Your task to perform on an android device: Open the calendar and show me this week's events? Image 0: 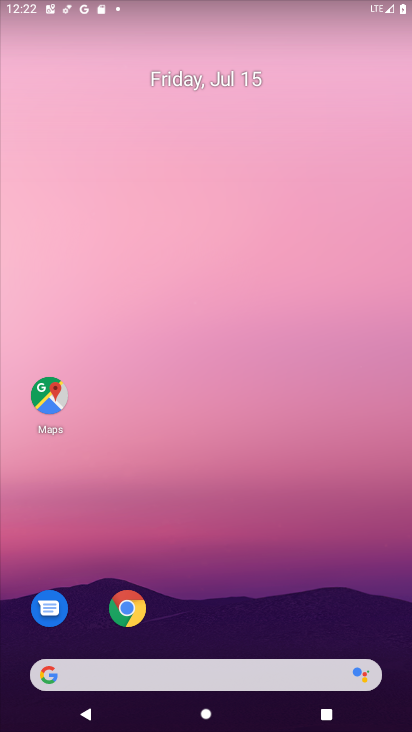
Step 0: drag from (200, 567) to (113, 137)
Your task to perform on an android device: Open the calendar and show me this week's events? Image 1: 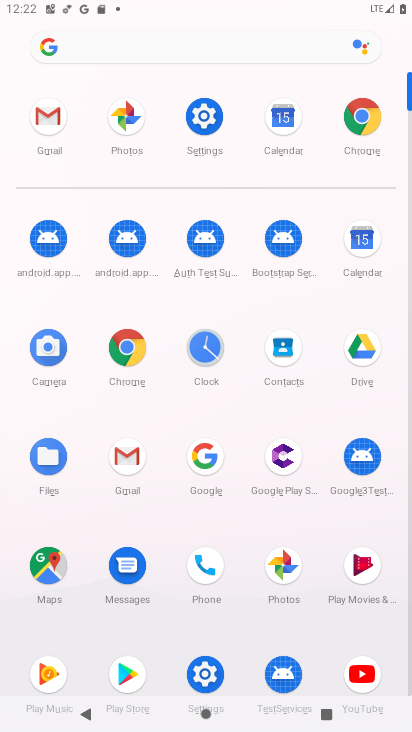
Step 1: click (274, 128)
Your task to perform on an android device: Open the calendar and show me this week's events? Image 2: 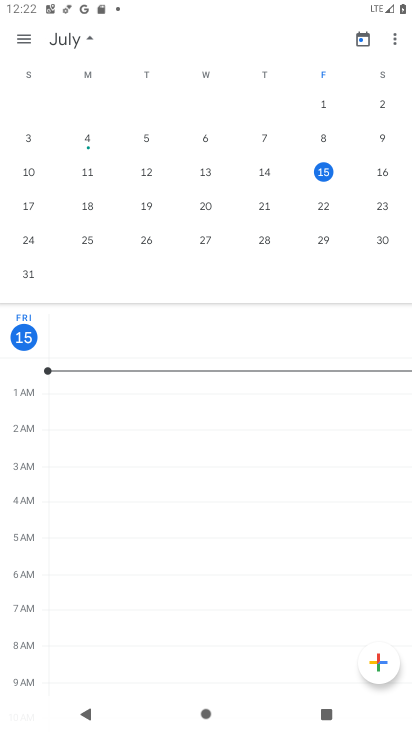
Step 2: click (18, 41)
Your task to perform on an android device: Open the calendar and show me this week's events? Image 3: 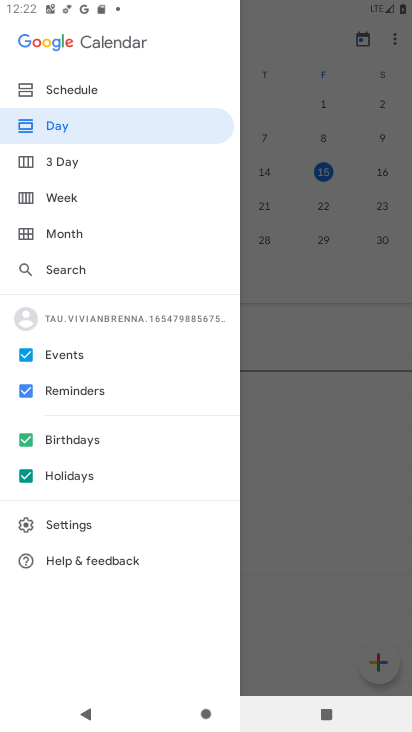
Step 3: click (67, 194)
Your task to perform on an android device: Open the calendar and show me this week's events? Image 4: 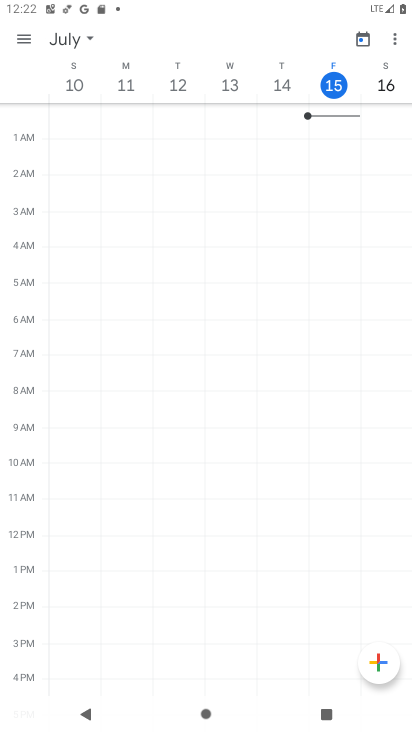
Step 4: task complete